Your task to perform on an android device: open device folders in google photos Image 0: 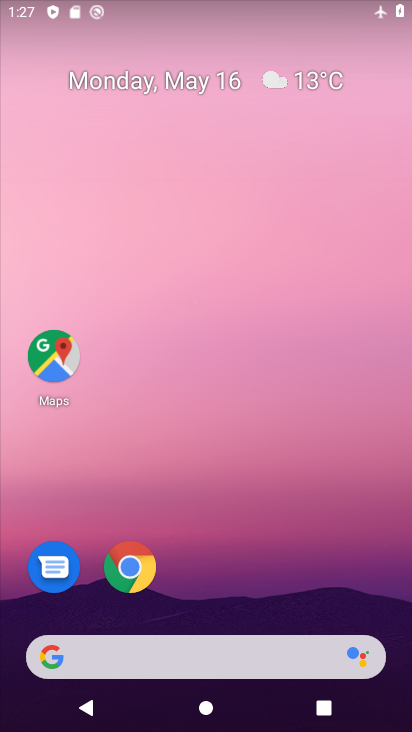
Step 0: drag from (216, 508) to (160, 103)
Your task to perform on an android device: open device folders in google photos Image 1: 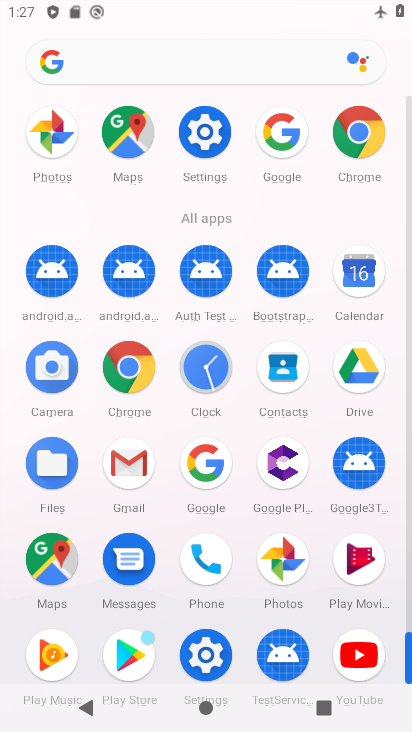
Step 1: click (45, 133)
Your task to perform on an android device: open device folders in google photos Image 2: 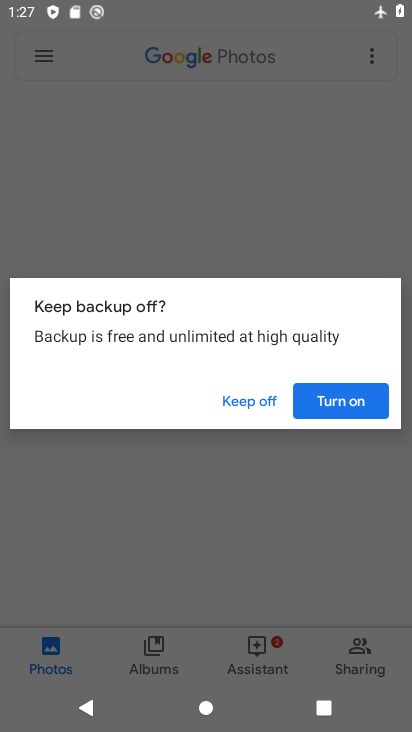
Step 2: click (324, 400)
Your task to perform on an android device: open device folders in google photos Image 3: 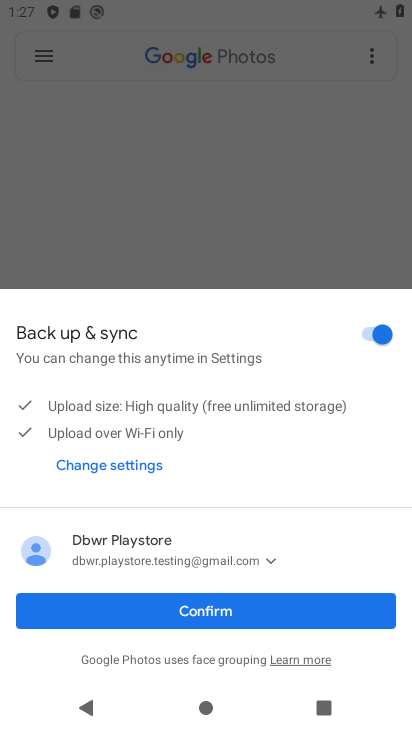
Step 3: click (196, 601)
Your task to perform on an android device: open device folders in google photos Image 4: 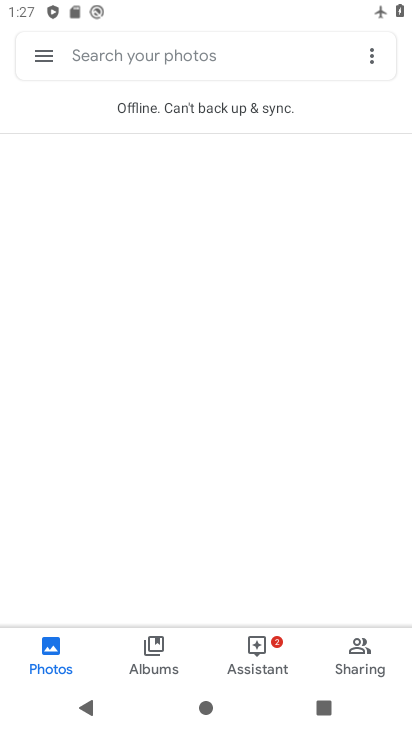
Step 4: click (42, 58)
Your task to perform on an android device: open device folders in google photos Image 5: 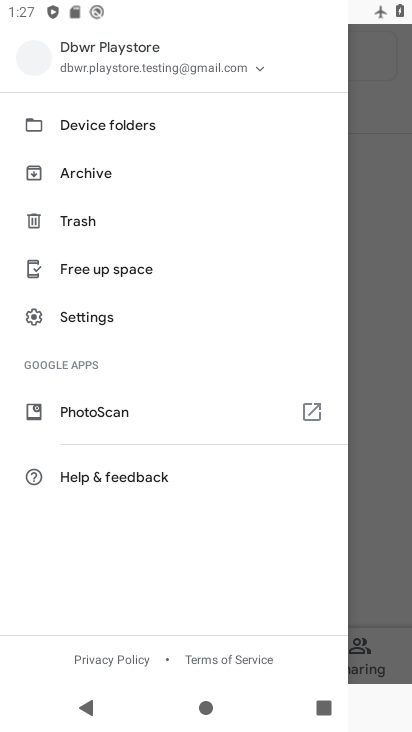
Step 5: click (112, 118)
Your task to perform on an android device: open device folders in google photos Image 6: 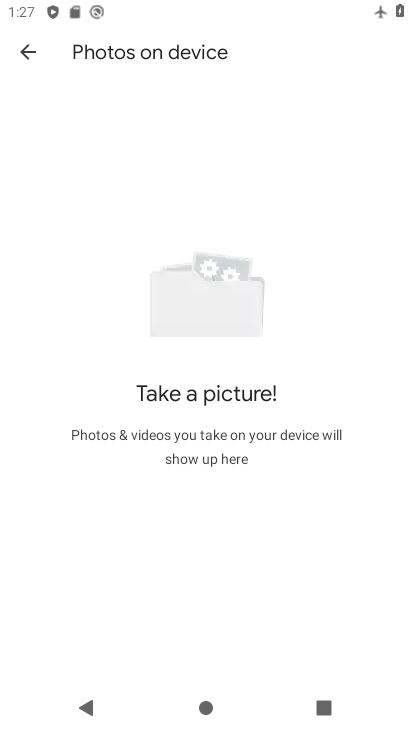
Step 6: task complete